Your task to perform on an android device: Search for Mexican restaurants on Maps Image 0: 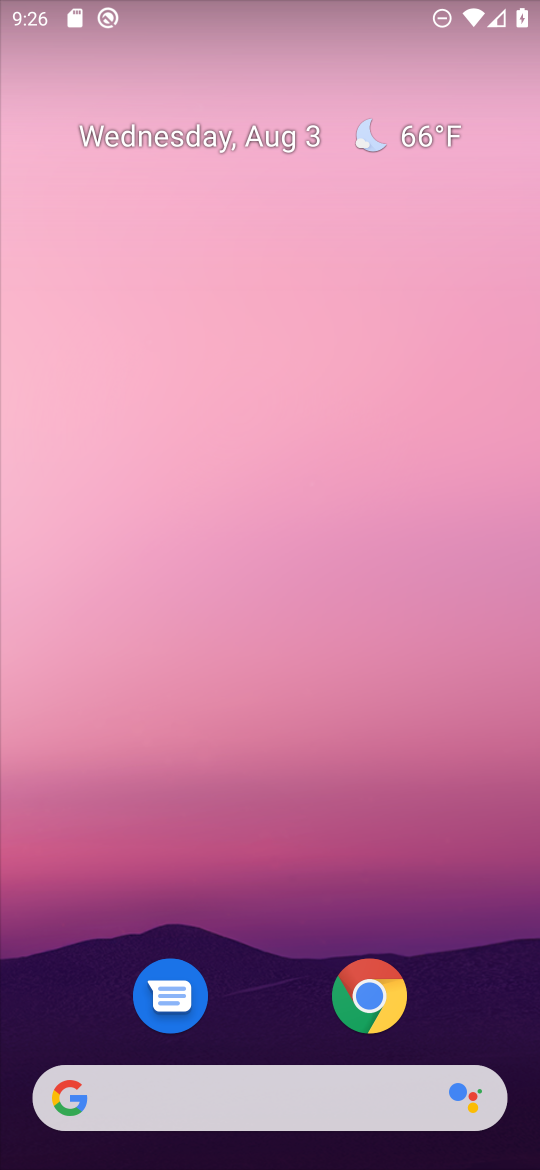
Step 0: drag from (270, 878) to (286, 57)
Your task to perform on an android device: Search for Mexican restaurants on Maps Image 1: 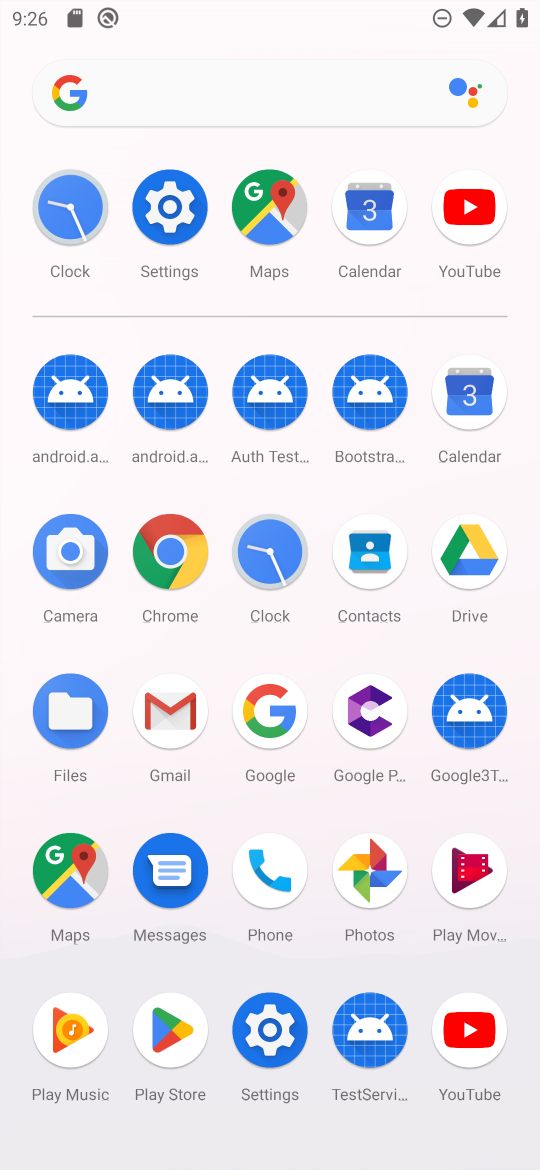
Step 1: click (256, 210)
Your task to perform on an android device: Search for Mexican restaurants on Maps Image 2: 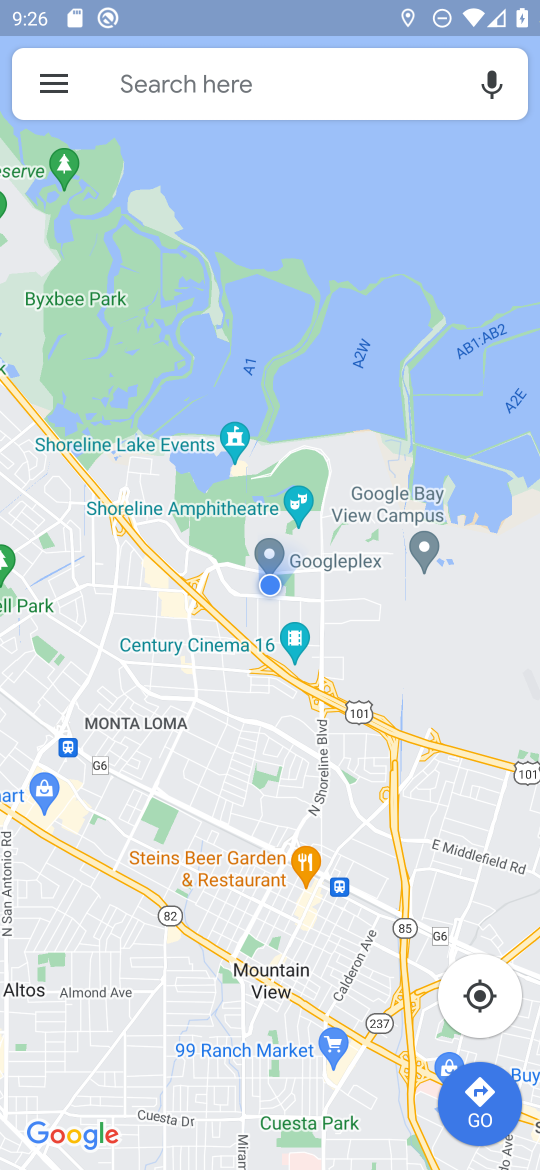
Step 2: click (261, 75)
Your task to perform on an android device: Search for Mexican restaurants on Maps Image 3: 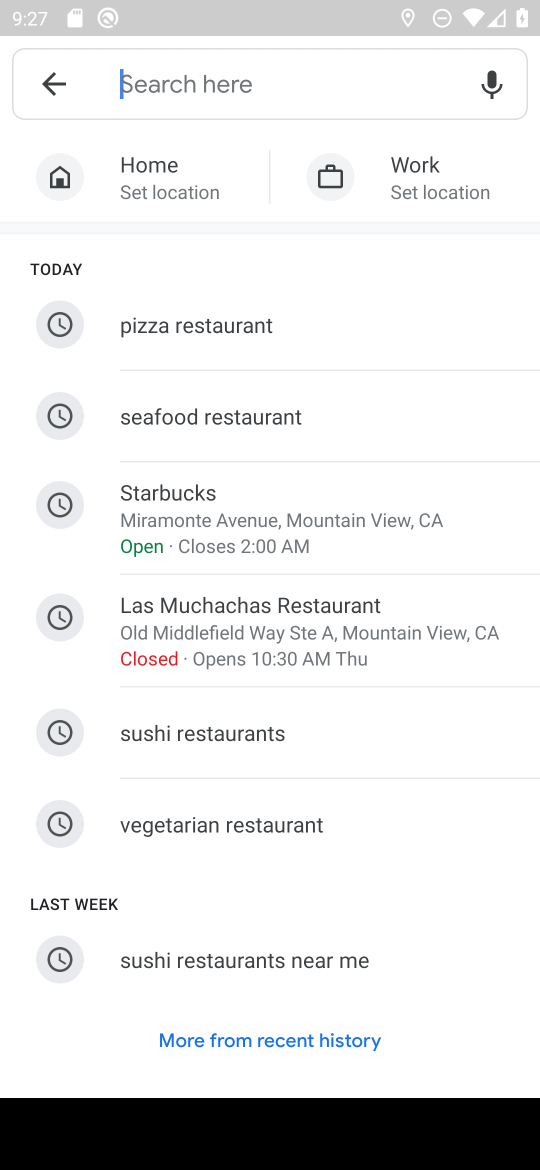
Step 3: type "mexican restaurants"
Your task to perform on an android device: Search for Mexican restaurants on Maps Image 4: 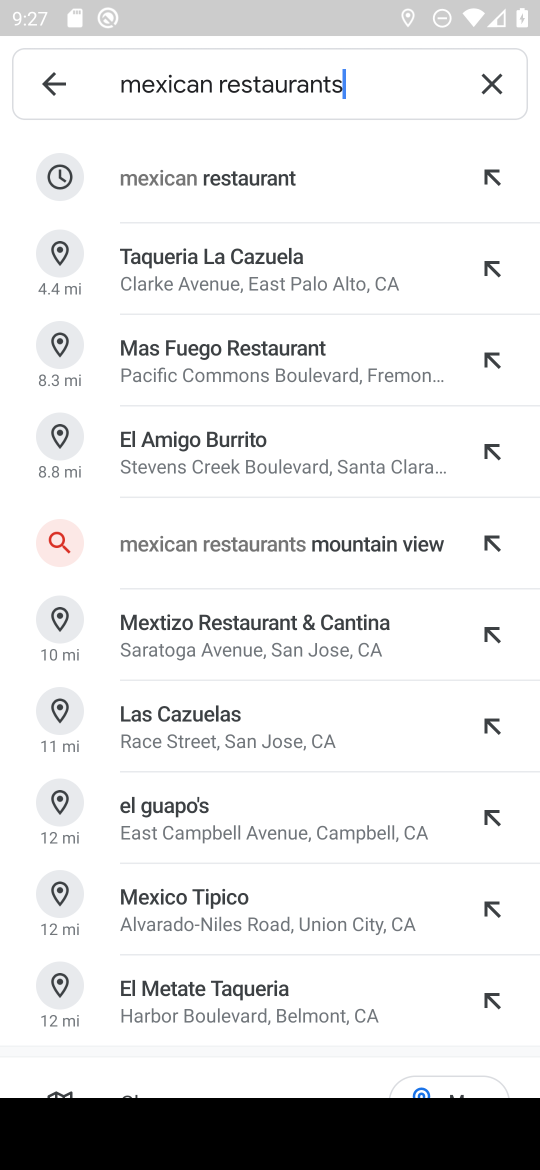
Step 4: click (258, 173)
Your task to perform on an android device: Search for Mexican restaurants on Maps Image 5: 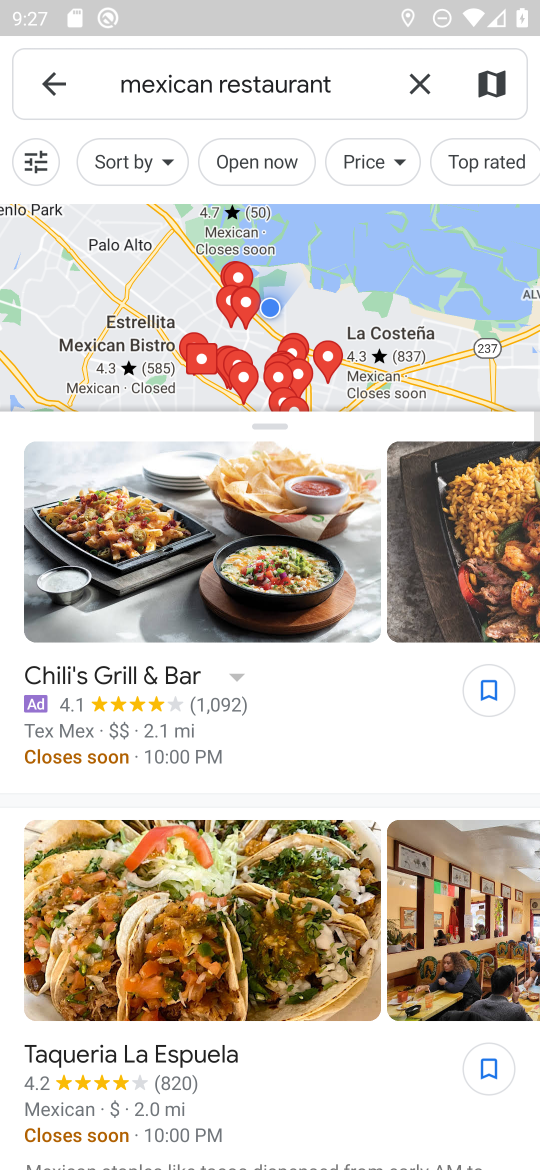
Step 5: task complete